Your task to perform on an android device: Open Chrome and go to the settings page Image 0: 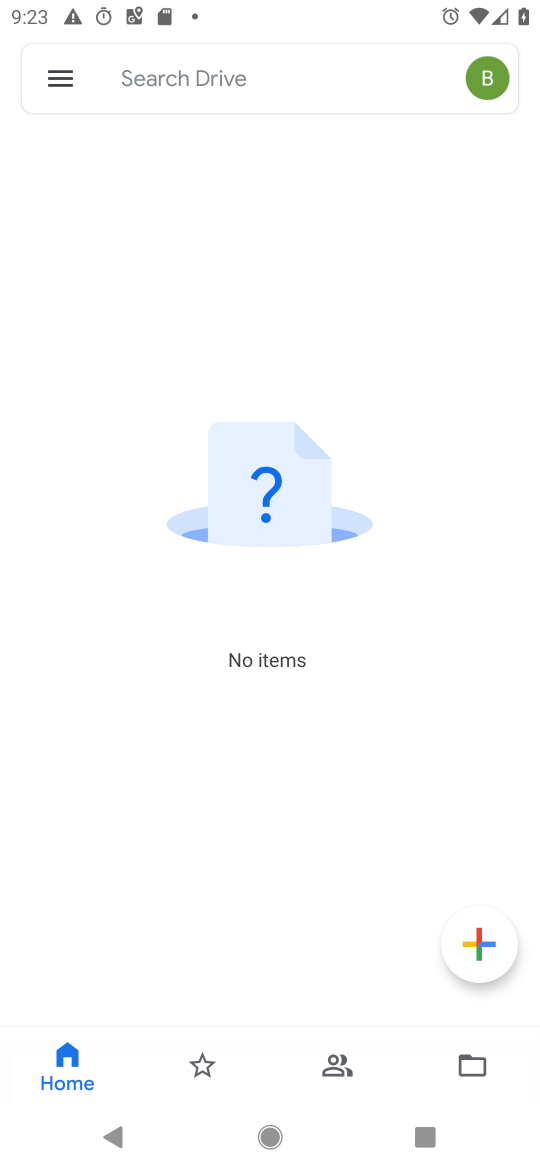
Step 0: drag from (186, 996) to (242, 441)
Your task to perform on an android device: Open Chrome and go to the settings page Image 1: 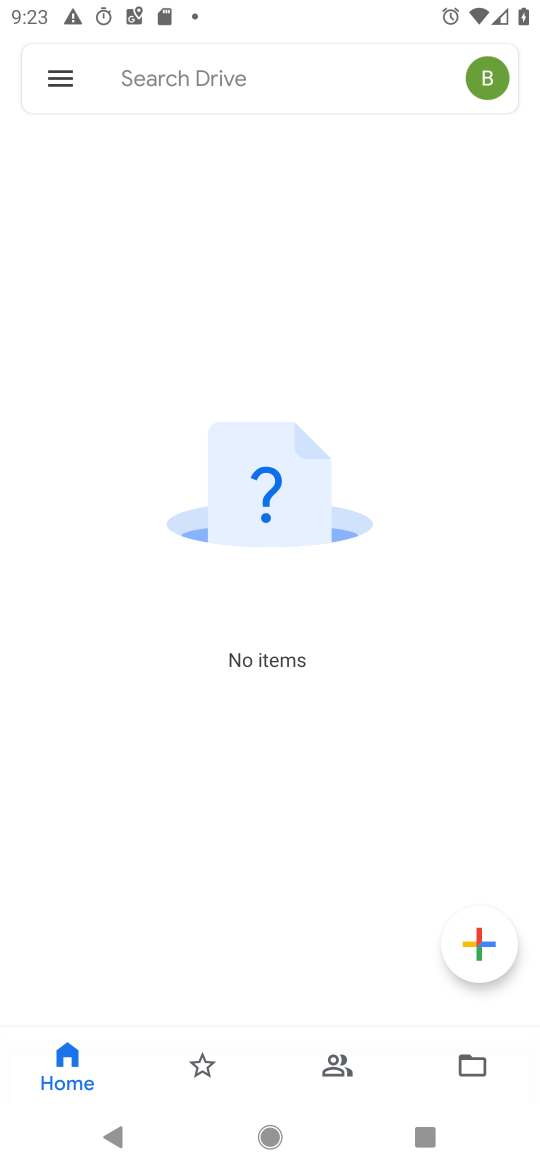
Step 1: drag from (340, 833) to (326, 527)
Your task to perform on an android device: Open Chrome and go to the settings page Image 2: 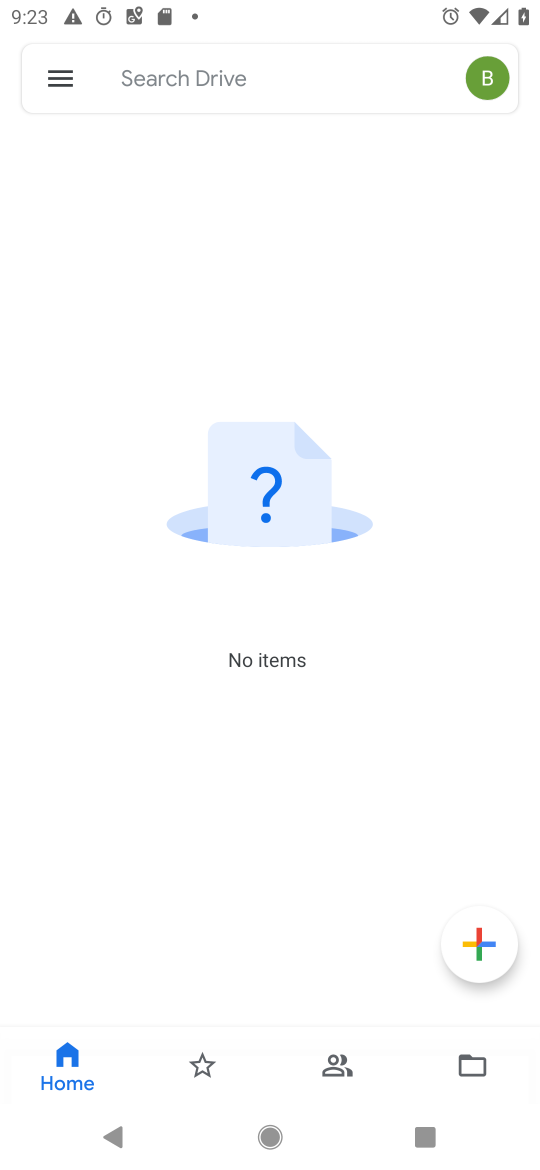
Step 2: press home button
Your task to perform on an android device: Open Chrome and go to the settings page Image 3: 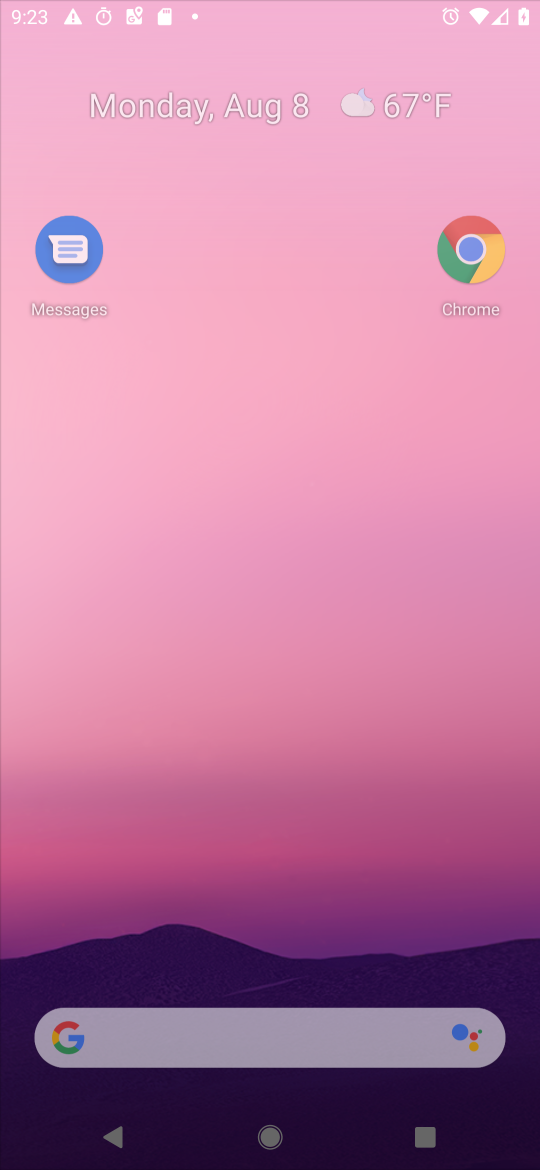
Step 3: drag from (231, 945) to (390, 143)
Your task to perform on an android device: Open Chrome and go to the settings page Image 4: 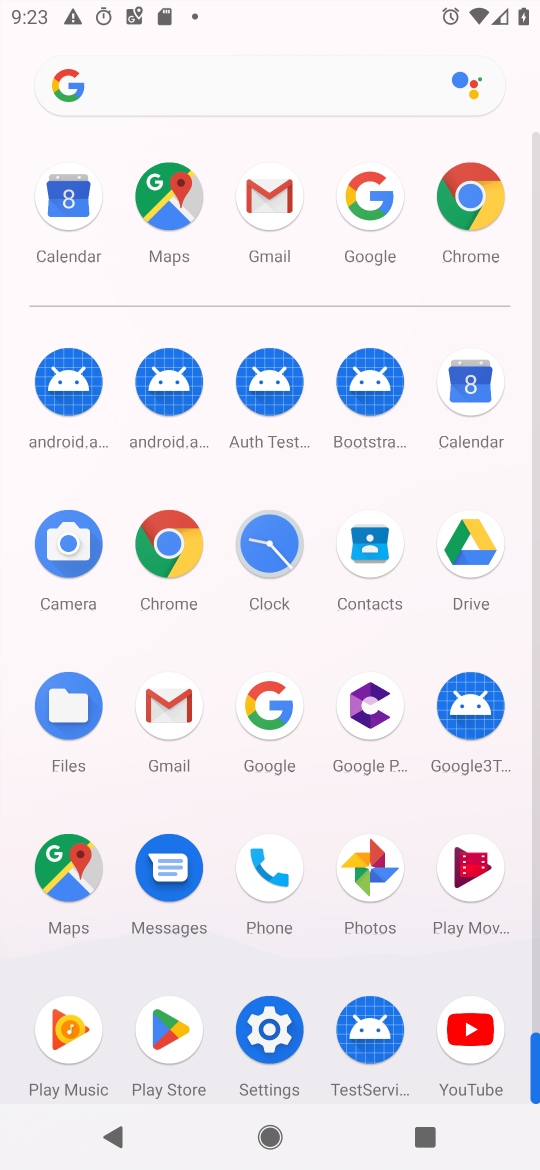
Step 4: click (248, 1022)
Your task to perform on an android device: Open Chrome and go to the settings page Image 5: 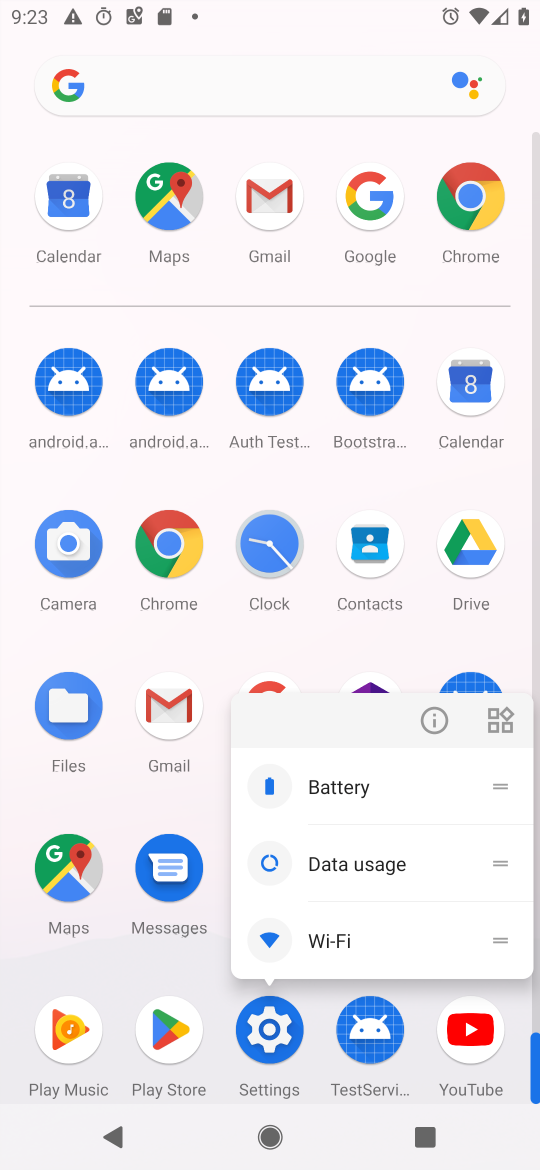
Step 5: click (432, 718)
Your task to perform on an android device: Open Chrome and go to the settings page Image 6: 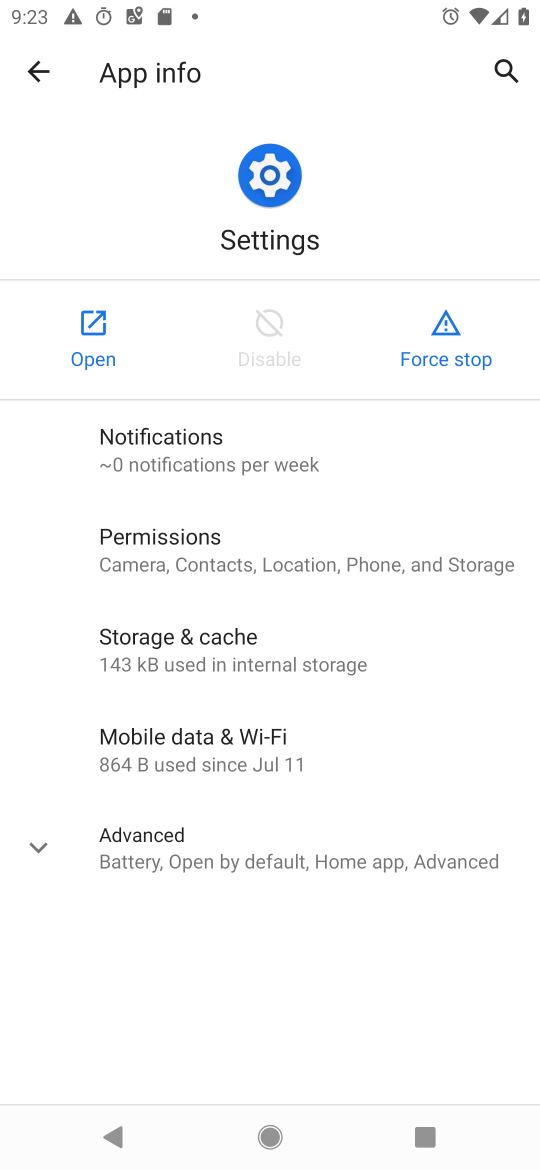
Step 6: press home button
Your task to perform on an android device: Open Chrome and go to the settings page Image 7: 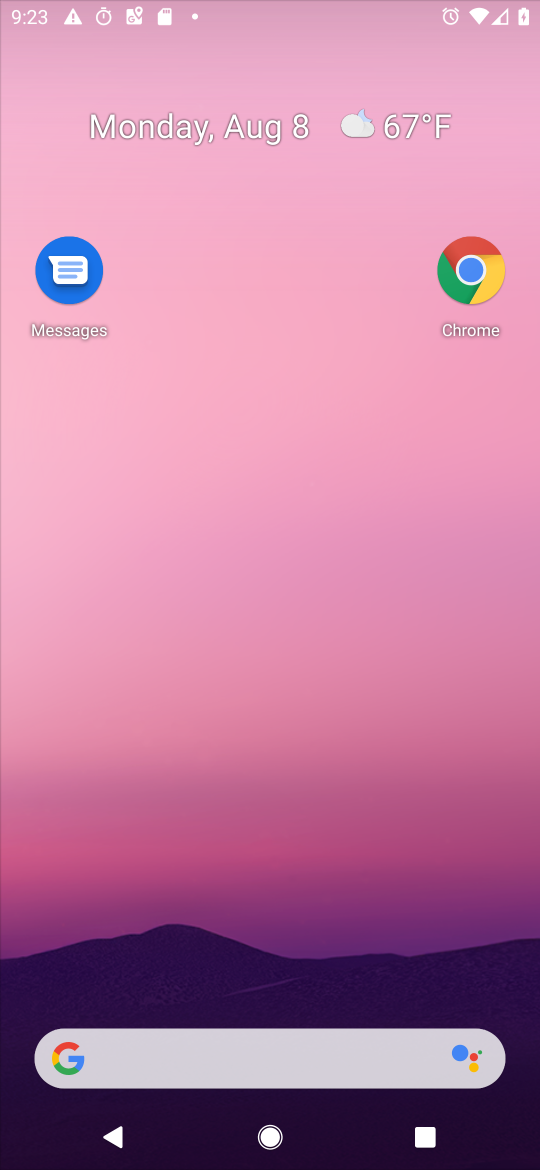
Step 7: drag from (201, 962) to (328, 42)
Your task to perform on an android device: Open Chrome and go to the settings page Image 8: 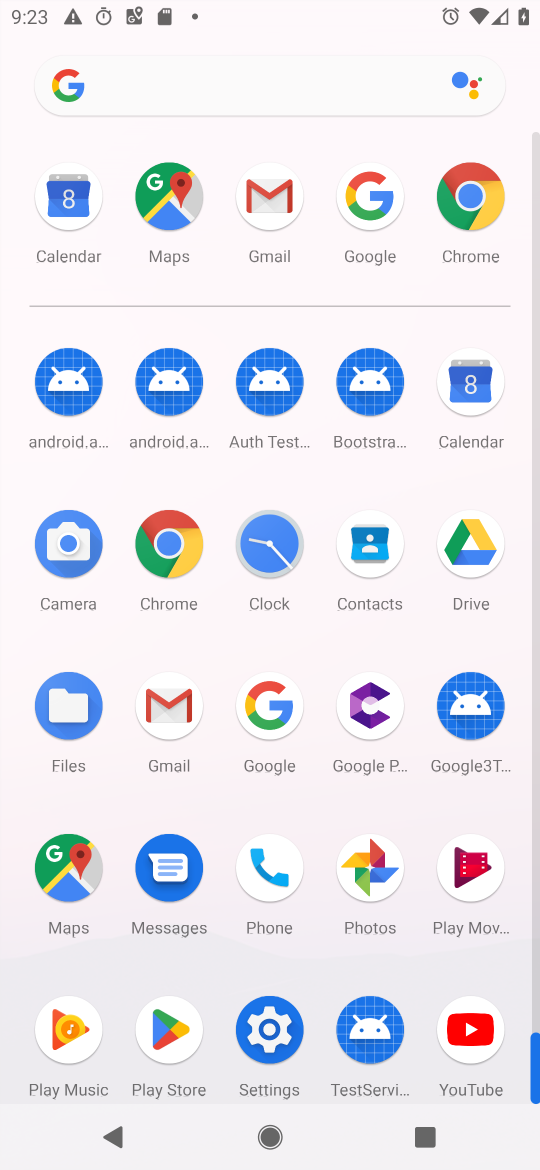
Step 8: click (171, 556)
Your task to perform on an android device: Open Chrome and go to the settings page Image 9: 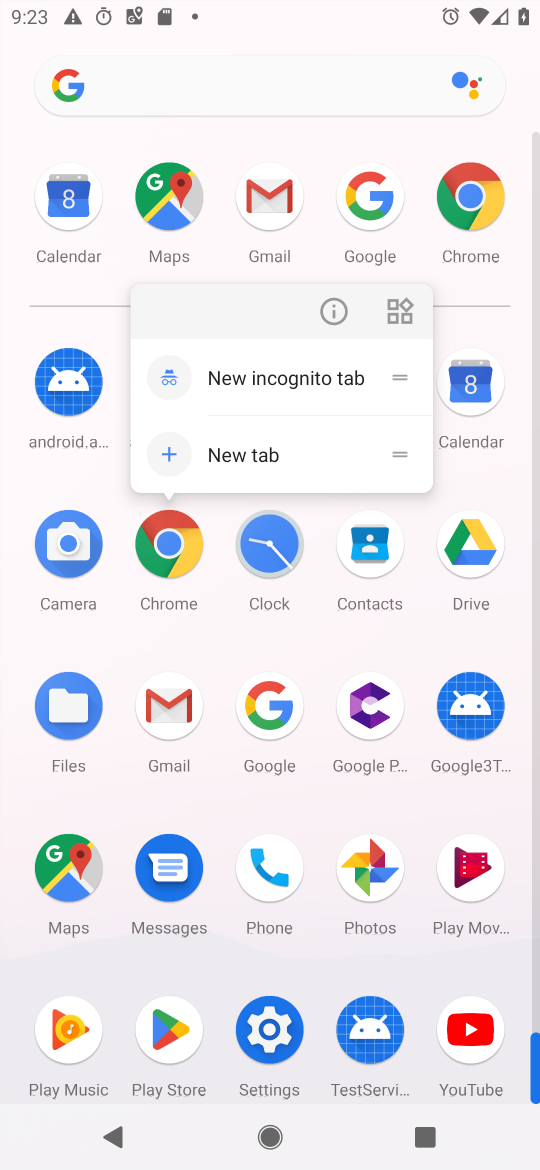
Step 9: click (324, 320)
Your task to perform on an android device: Open Chrome and go to the settings page Image 10: 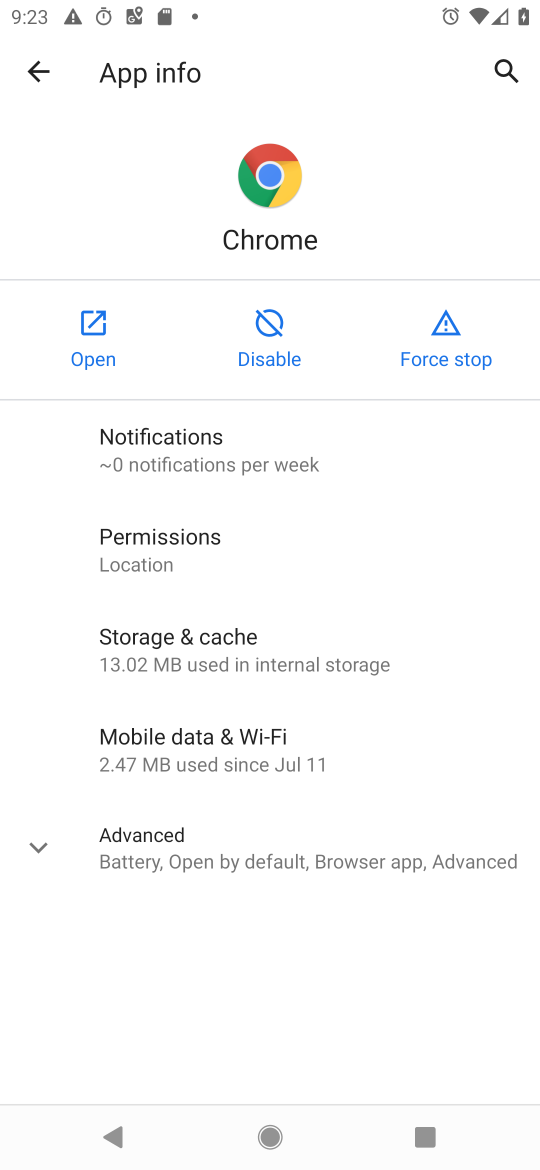
Step 10: click (88, 347)
Your task to perform on an android device: Open Chrome and go to the settings page Image 11: 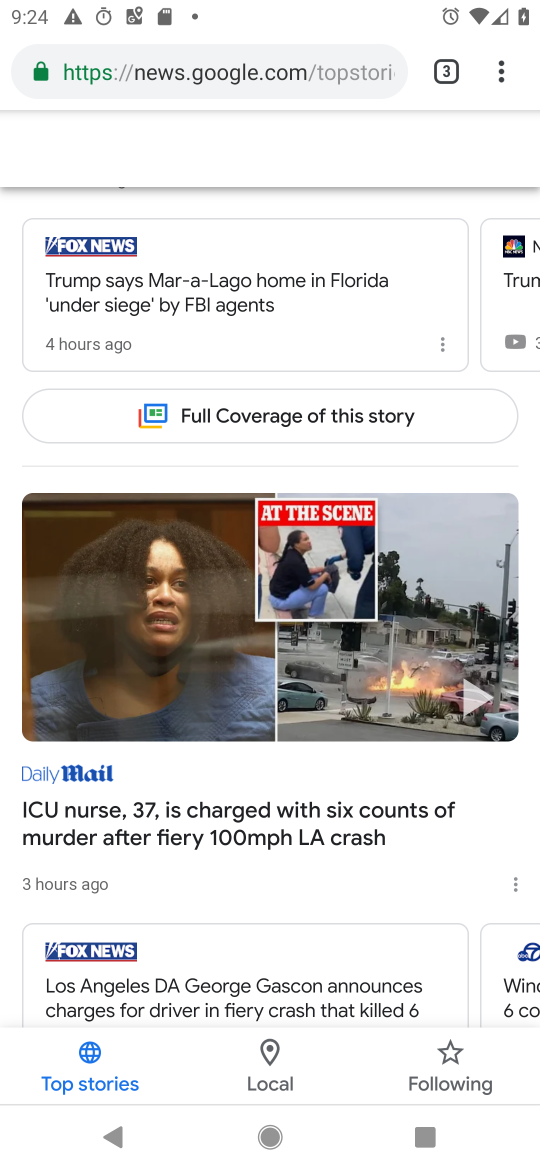
Step 11: task complete